Your task to perform on an android device: Go to Wikipedia Image 0: 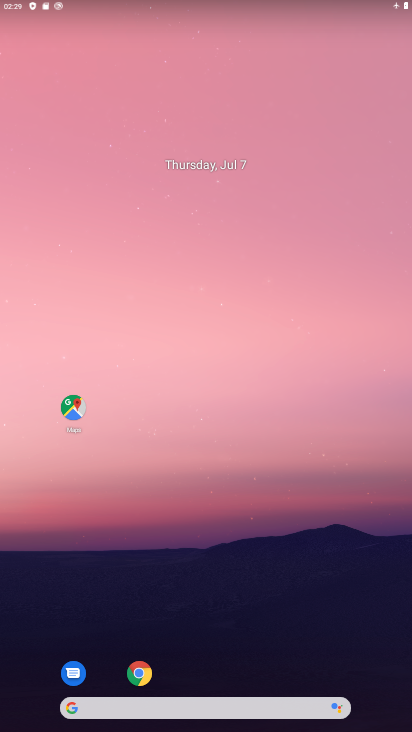
Step 0: click (142, 673)
Your task to perform on an android device: Go to Wikipedia Image 1: 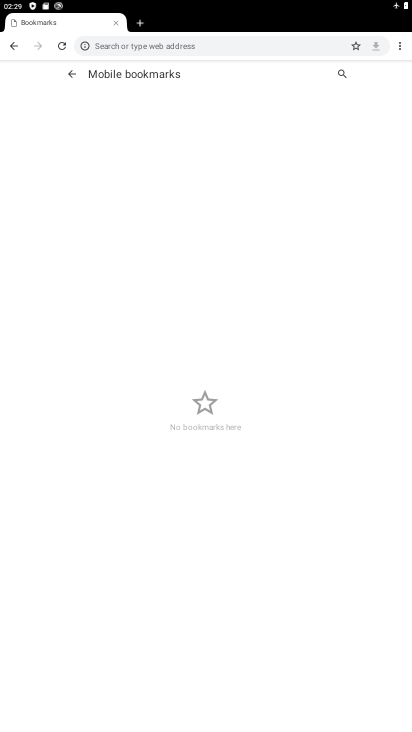
Step 1: click (143, 24)
Your task to perform on an android device: Go to Wikipedia Image 2: 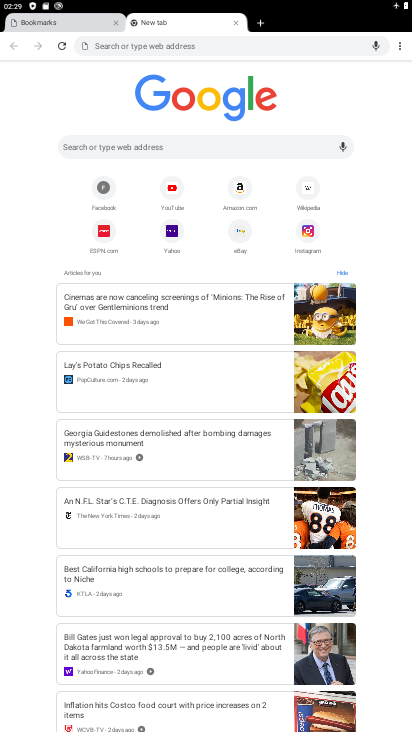
Step 2: click (305, 195)
Your task to perform on an android device: Go to Wikipedia Image 3: 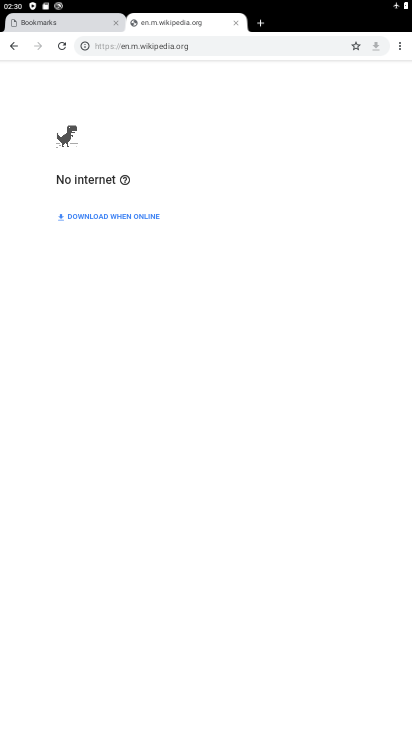
Step 3: task complete